Your task to perform on an android device: turn off data saver in the chrome app Image 0: 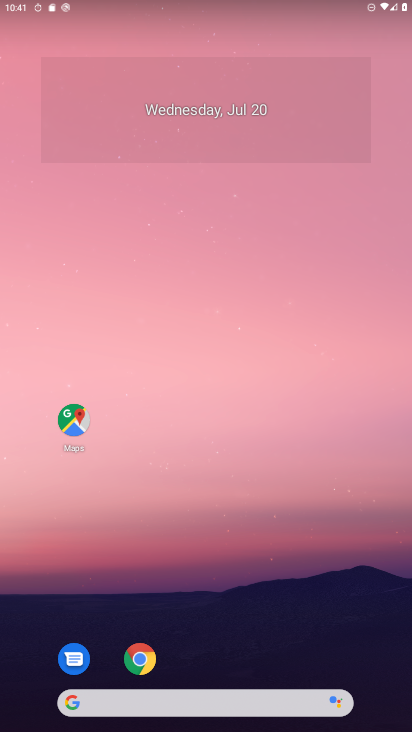
Step 0: drag from (294, 598) to (293, 114)
Your task to perform on an android device: turn off data saver in the chrome app Image 1: 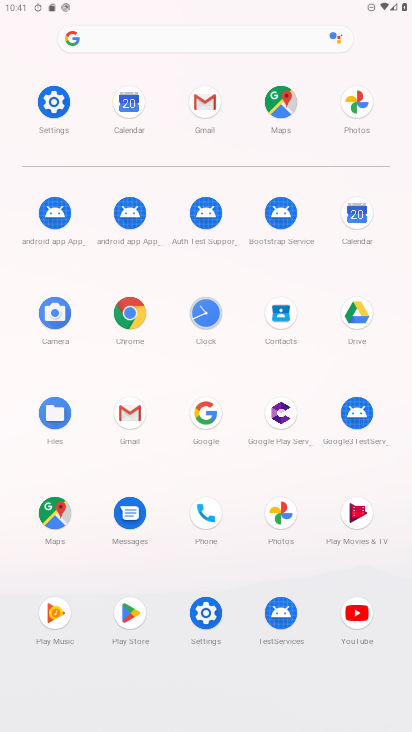
Step 1: click (129, 308)
Your task to perform on an android device: turn off data saver in the chrome app Image 2: 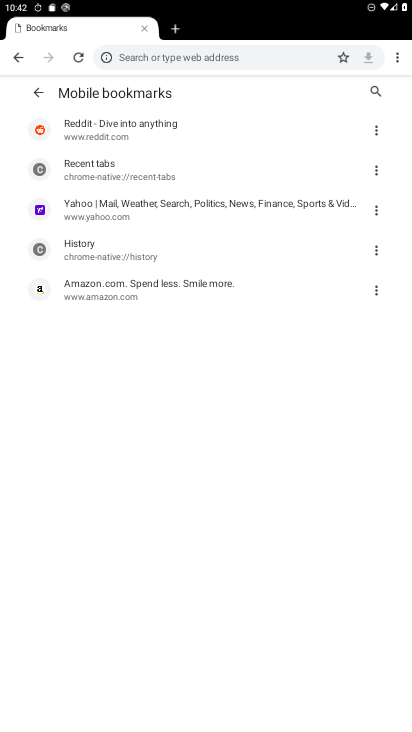
Step 2: drag from (398, 53) to (285, 262)
Your task to perform on an android device: turn off data saver in the chrome app Image 3: 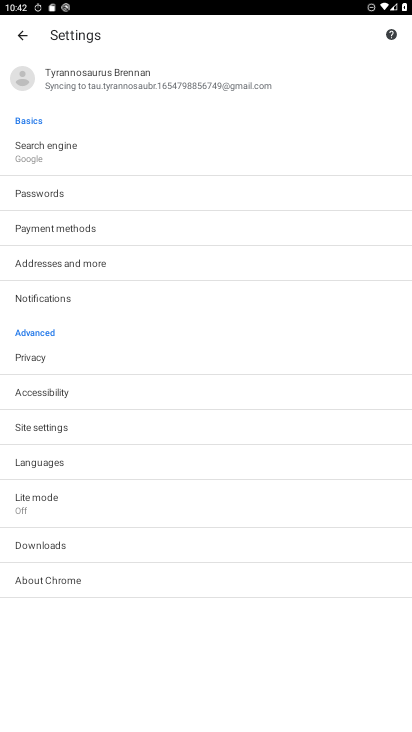
Step 3: click (104, 501)
Your task to perform on an android device: turn off data saver in the chrome app Image 4: 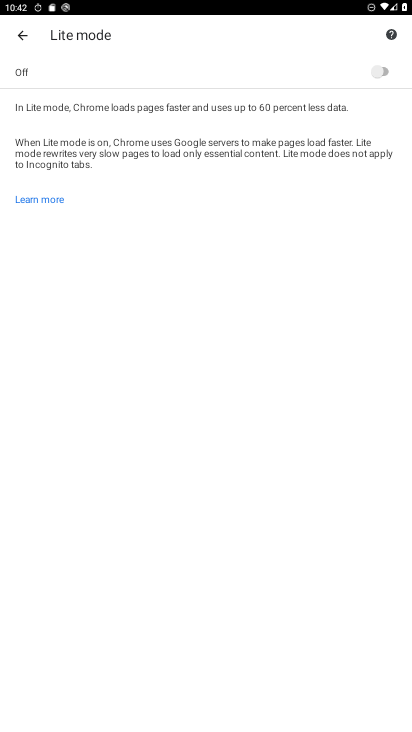
Step 4: task complete